Your task to perform on an android device: empty trash in the gmail app Image 0: 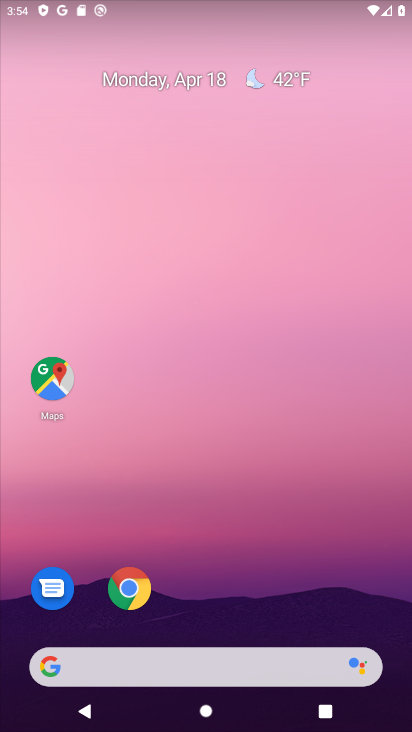
Step 0: drag from (269, 616) to (298, 172)
Your task to perform on an android device: empty trash in the gmail app Image 1: 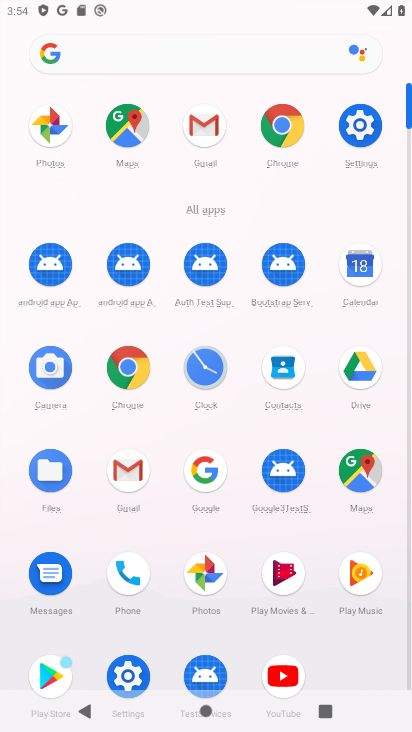
Step 1: click (141, 466)
Your task to perform on an android device: empty trash in the gmail app Image 2: 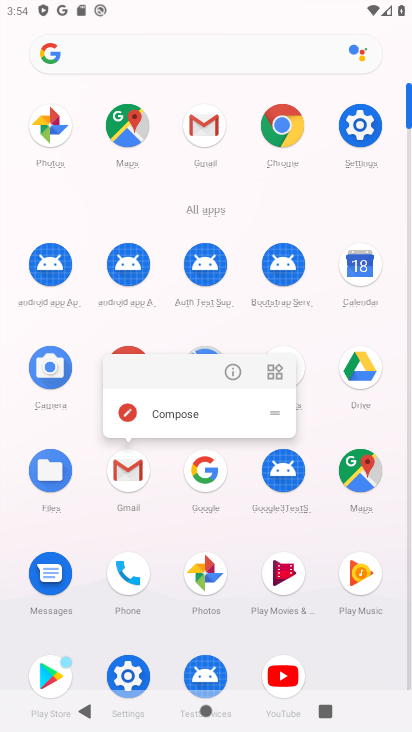
Step 2: click (139, 487)
Your task to perform on an android device: empty trash in the gmail app Image 3: 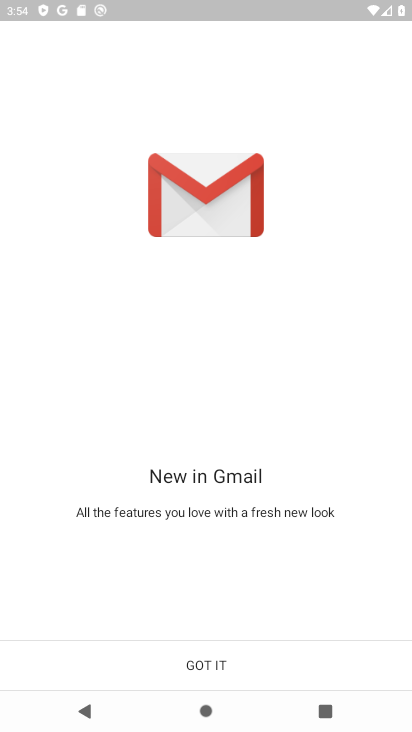
Step 3: click (216, 660)
Your task to perform on an android device: empty trash in the gmail app Image 4: 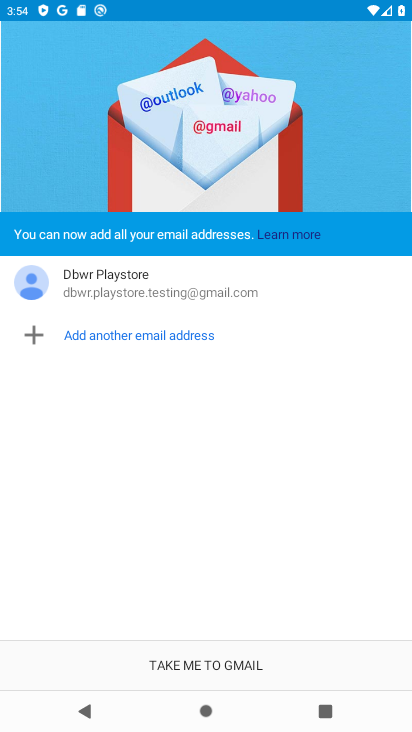
Step 4: click (213, 662)
Your task to perform on an android device: empty trash in the gmail app Image 5: 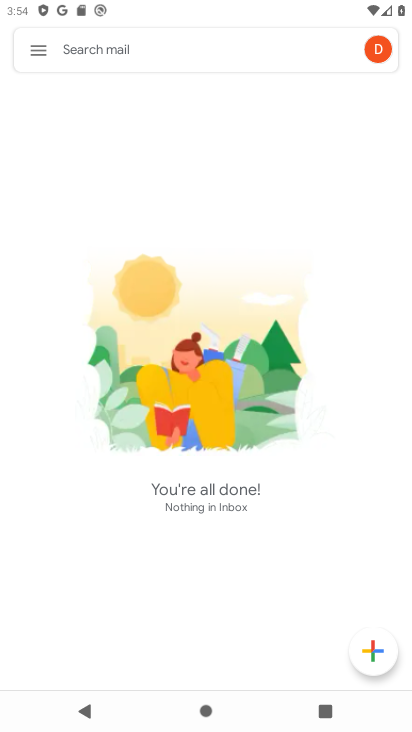
Step 5: click (27, 43)
Your task to perform on an android device: empty trash in the gmail app Image 6: 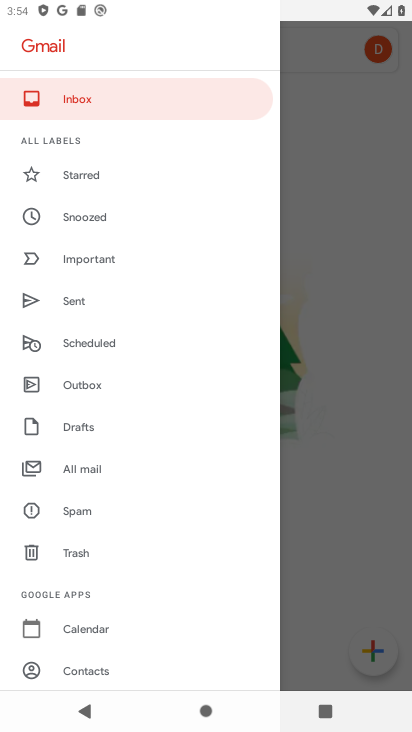
Step 6: click (99, 557)
Your task to perform on an android device: empty trash in the gmail app Image 7: 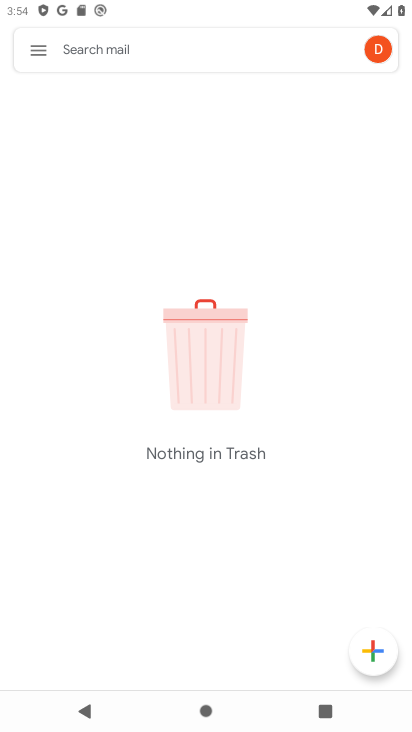
Step 7: task complete